Your task to perform on an android device: turn on the 24-hour format for clock Image 0: 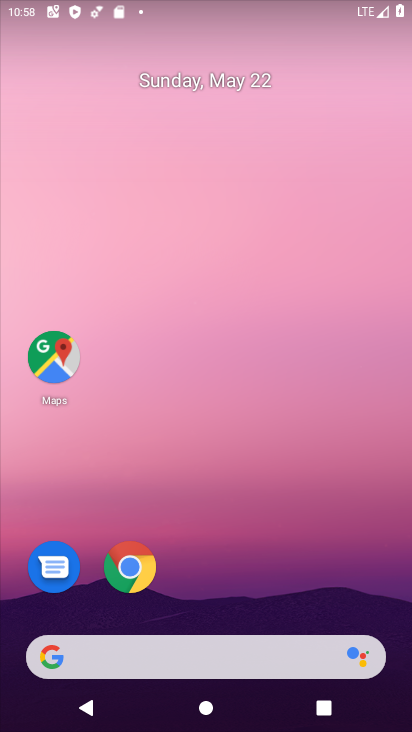
Step 0: drag from (364, 544) to (390, 115)
Your task to perform on an android device: turn on the 24-hour format for clock Image 1: 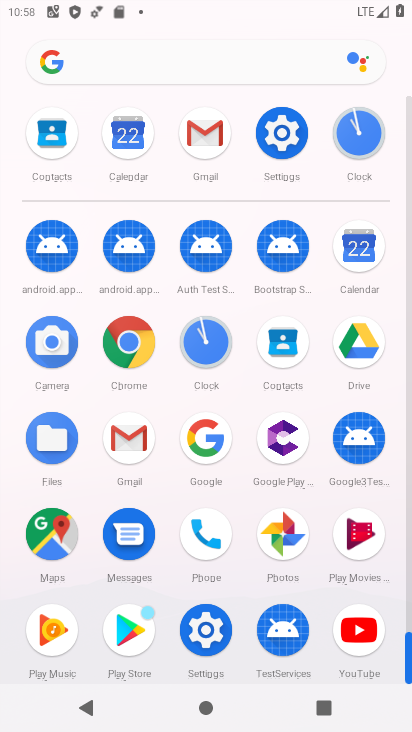
Step 1: click (206, 342)
Your task to perform on an android device: turn on the 24-hour format for clock Image 2: 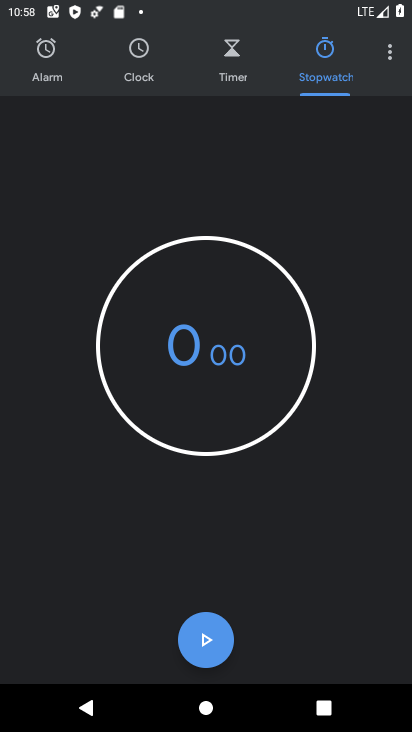
Step 2: click (388, 65)
Your task to perform on an android device: turn on the 24-hour format for clock Image 3: 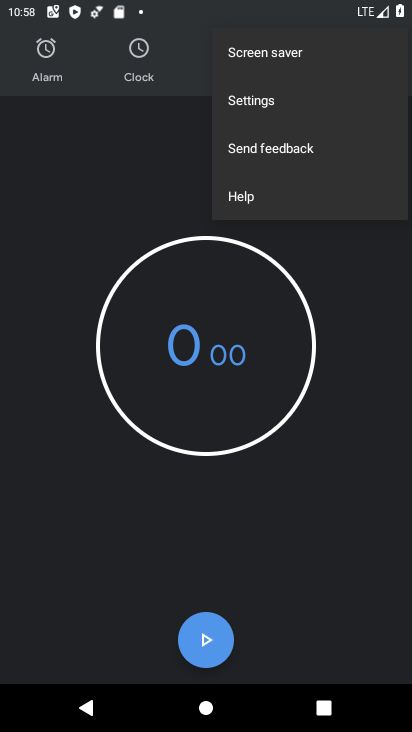
Step 3: click (247, 99)
Your task to perform on an android device: turn on the 24-hour format for clock Image 4: 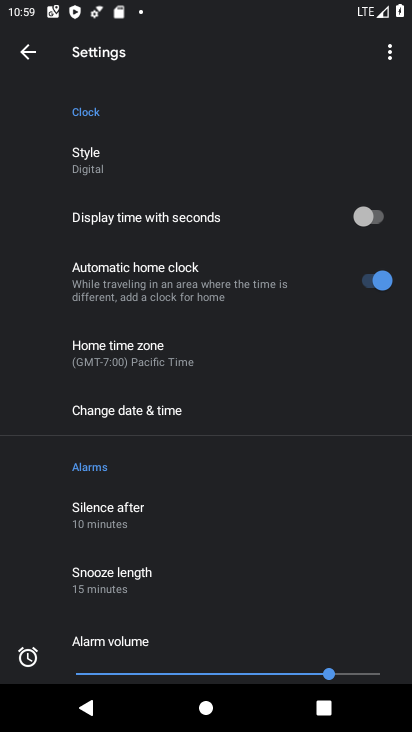
Step 4: click (115, 413)
Your task to perform on an android device: turn on the 24-hour format for clock Image 5: 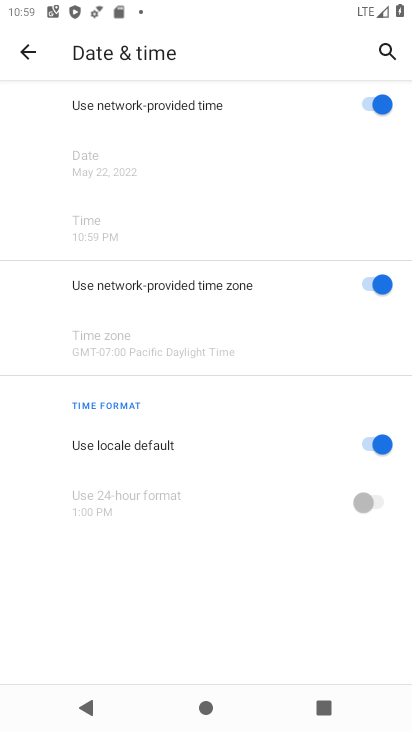
Step 5: click (374, 497)
Your task to perform on an android device: turn on the 24-hour format for clock Image 6: 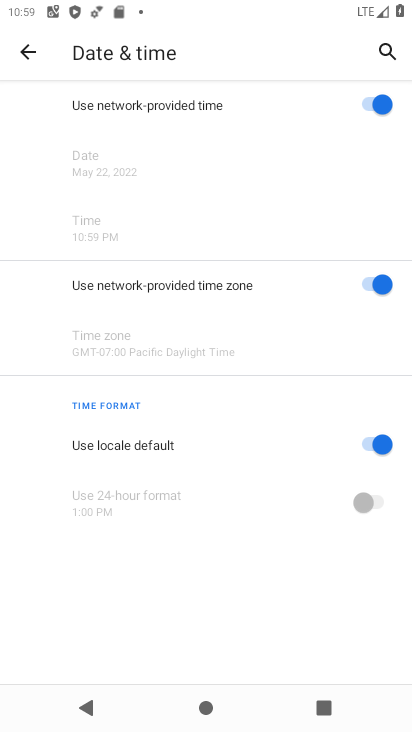
Step 6: click (363, 438)
Your task to perform on an android device: turn on the 24-hour format for clock Image 7: 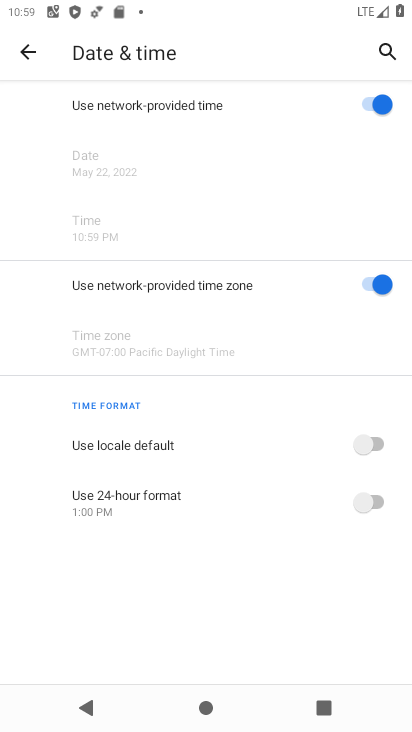
Step 7: click (379, 502)
Your task to perform on an android device: turn on the 24-hour format for clock Image 8: 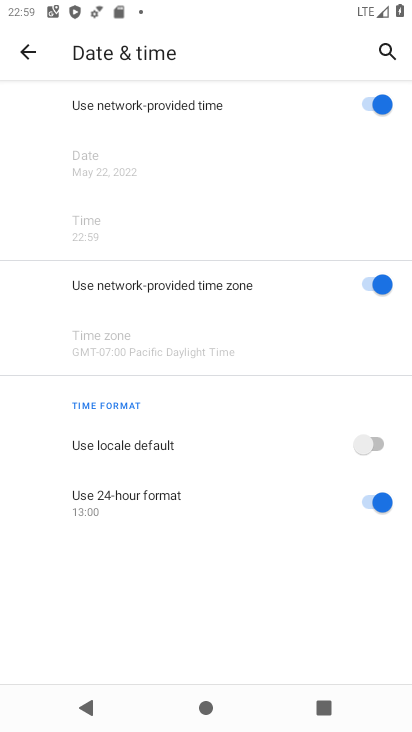
Step 8: task complete